Your task to perform on an android device: Go to Yahoo.com Image 0: 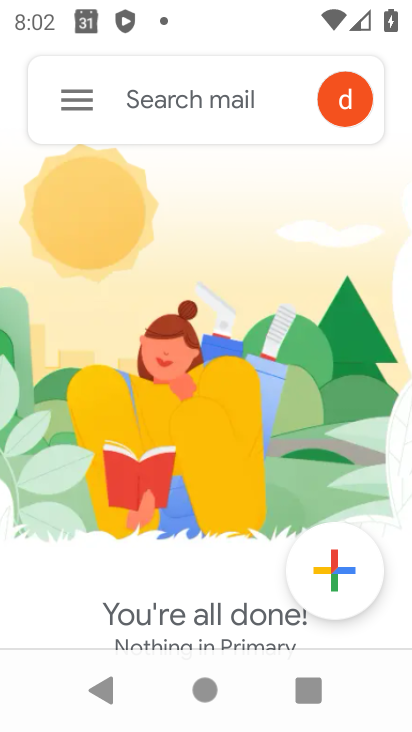
Step 0: press home button
Your task to perform on an android device: Go to Yahoo.com Image 1: 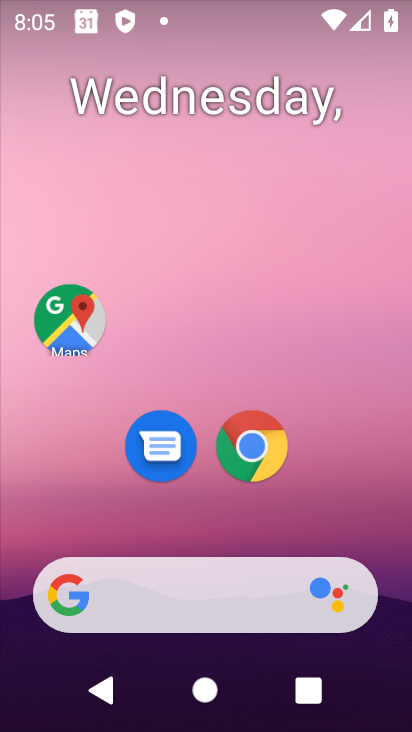
Step 1: click (269, 442)
Your task to perform on an android device: Go to Yahoo.com Image 2: 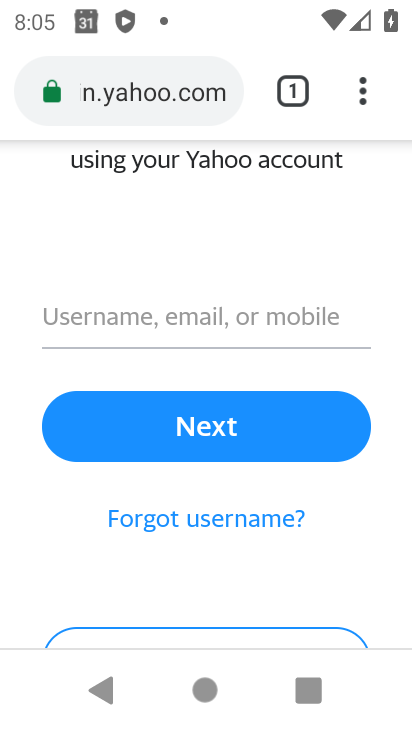
Step 2: click (170, 88)
Your task to perform on an android device: Go to Yahoo.com Image 3: 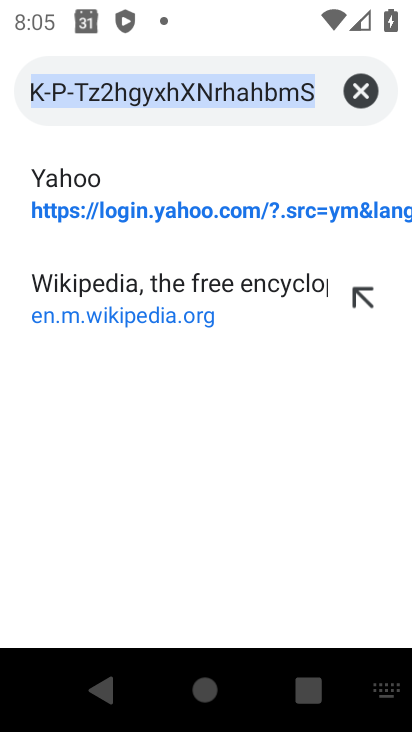
Step 3: click (121, 185)
Your task to perform on an android device: Go to Yahoo.com Image 4: 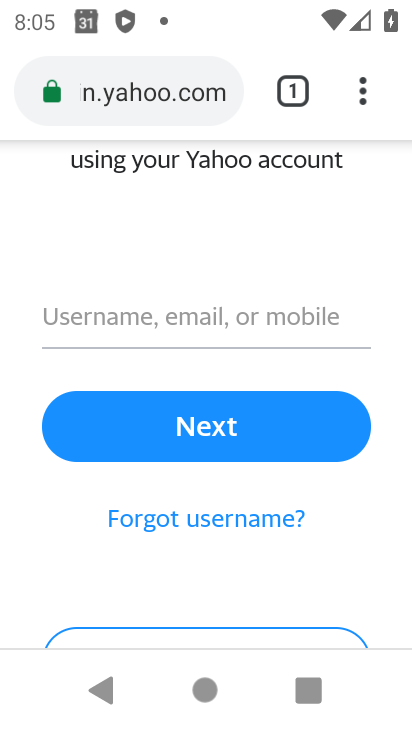
Step 4: task complete